Your task to perform on an android device: Open Yahoo.com Image 0: 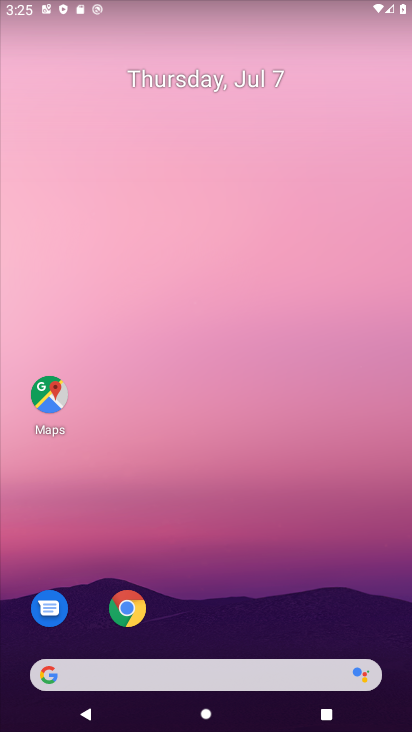
Step 0: click (124, 606)
Your task to perform on an android device: Open Yahoo.com Image 1: 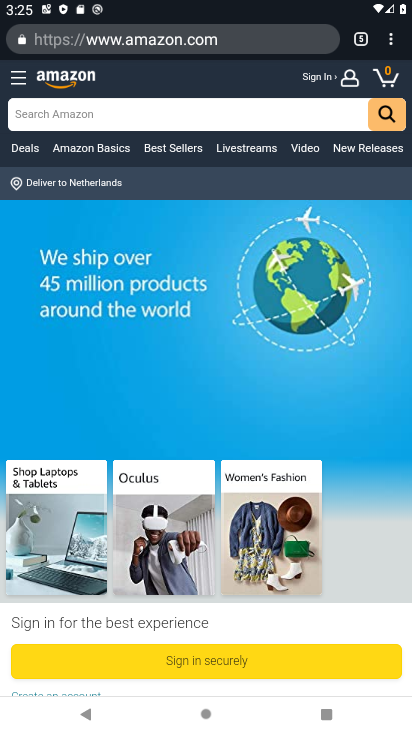
Step 1: click (249, 35)
Your task to perform on an android device: Open Yahoo.com Image 2: 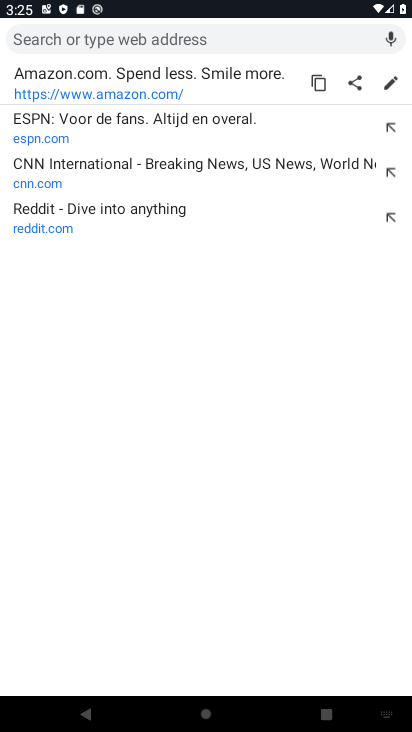
Step 2: type "yahoo.com"
Your task to perform on an android device: Open Yahoo.com Image 3: 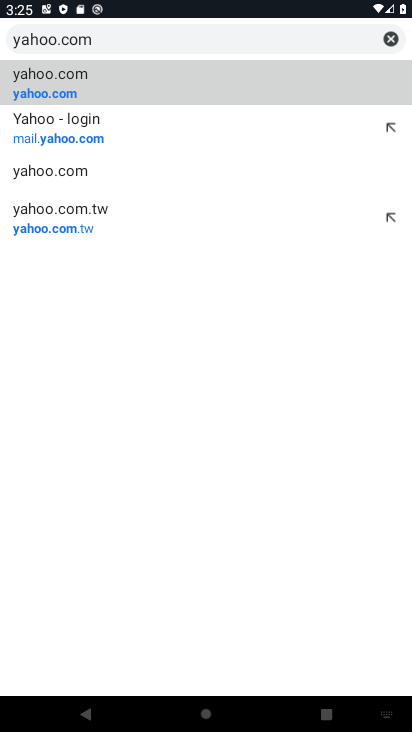
Step 3: click (51, 73)
Your task to perform on an android device: Open Yahoo.com Image 4: 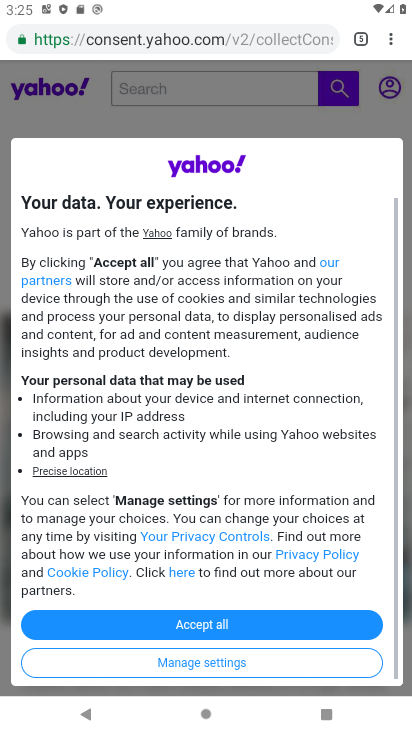
Step 4: click (204, 623)
Your task to perform on an android device: Open Yahoo.com Image 5: 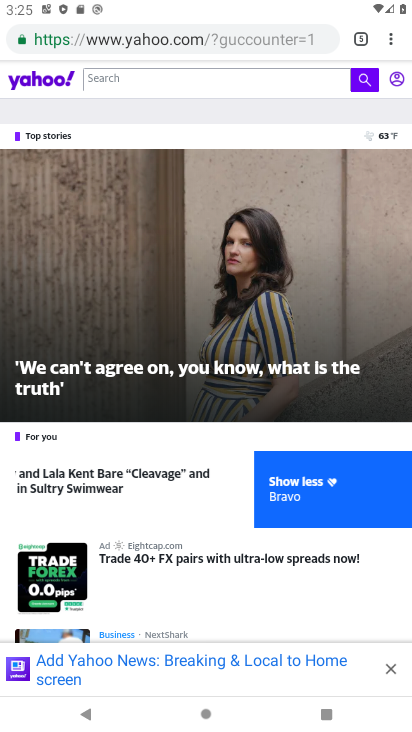
Step 5: task complete